Your task to perform on an android device: Open the stopwatch Image 0: 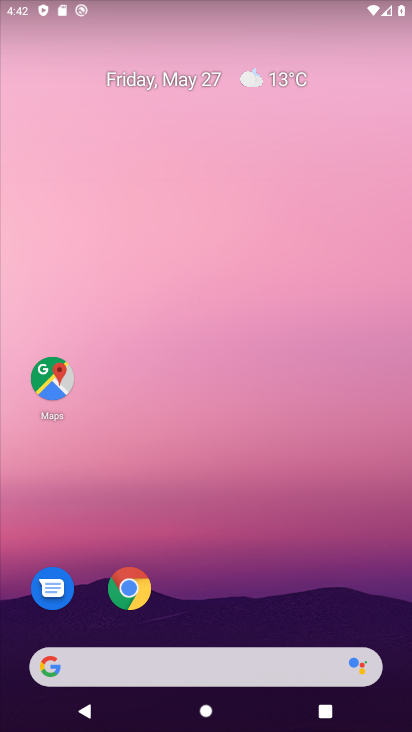
Step 0: drag from (239, 471) to (294, 87)
Your task to perform on an android device: Open the stopwatch Image 1: 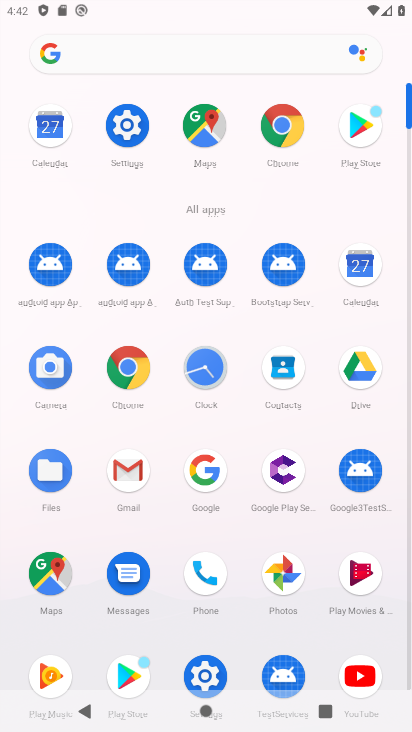
Step 1: click (133, 123)
Your task to perform on an android device: Open the stopwatch Image 2: 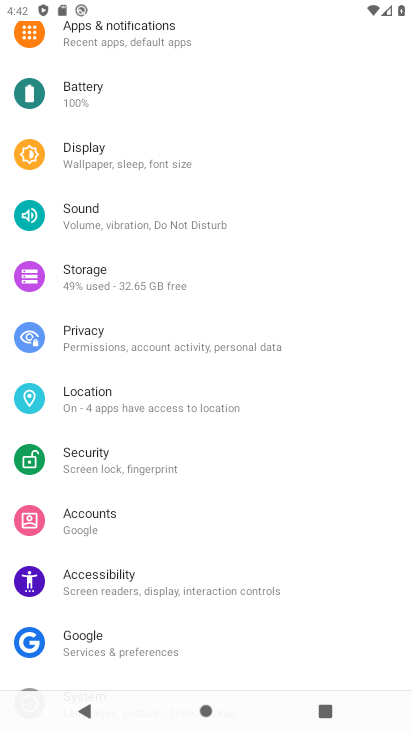
Step 2: press back button
Your task to perform on an android device: Open the stopwatch Image 3: 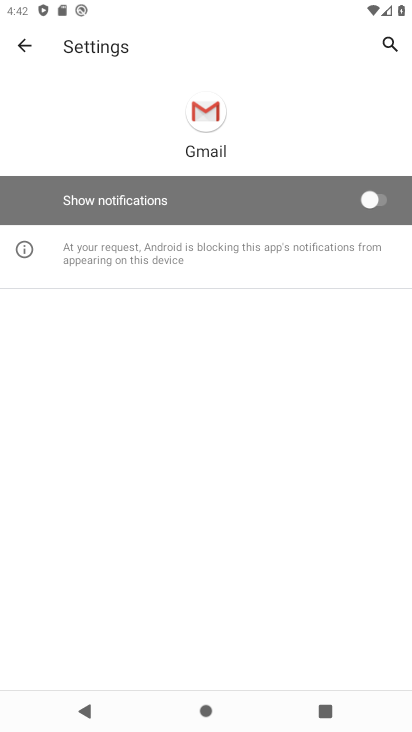
Step 3: press back button
Your task to perform on an android device: Open the stopwatch Image 4: 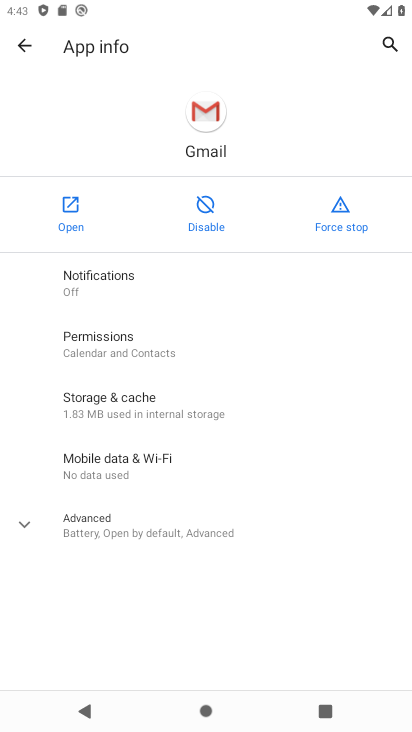
Step 4: press home button
Your task to perform on an android device: Open the stopwatch Image 5: 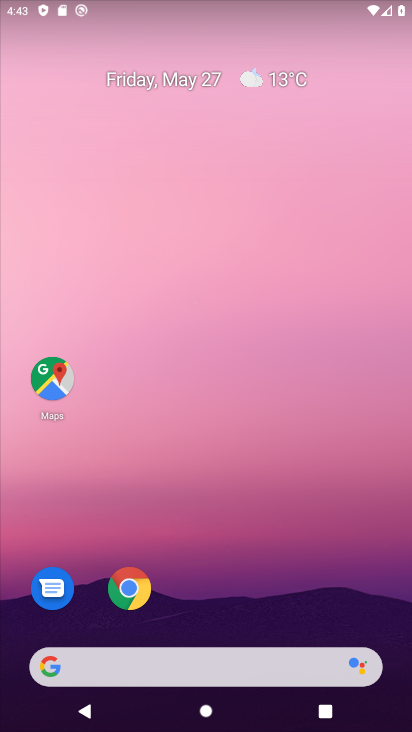
Step 5: drag from (180, 596) to (251, 44)
Your task to perform on an android device: Open the stopwatch Image 6: 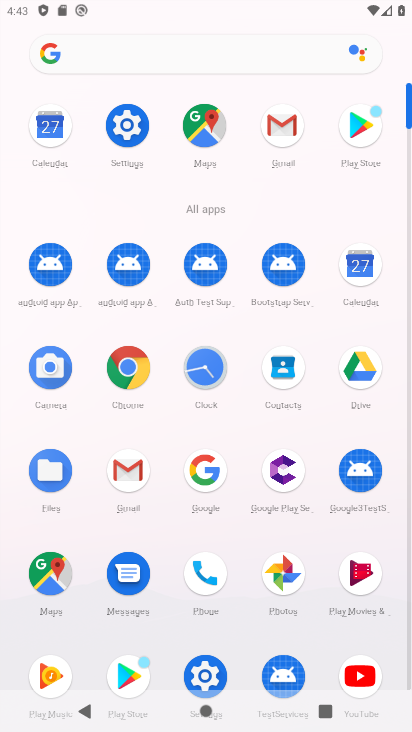
Step 6: click (203, 373)
Your task to perform on an android device: Open the stopwatch Image 7: 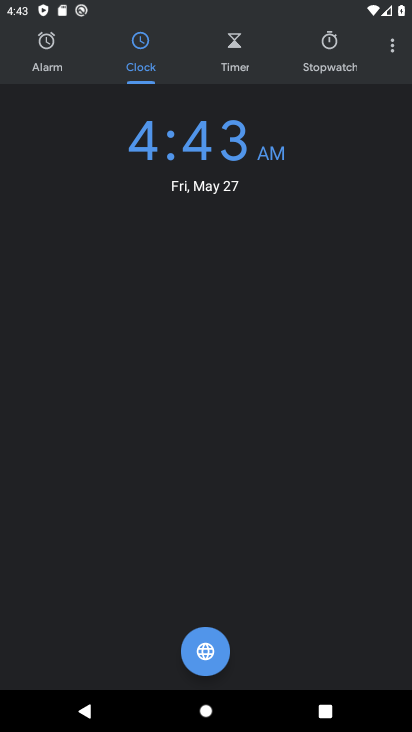
Step 7: click (316, 46)
Your task to perform on an android device: Open the stopwatch Image 8: 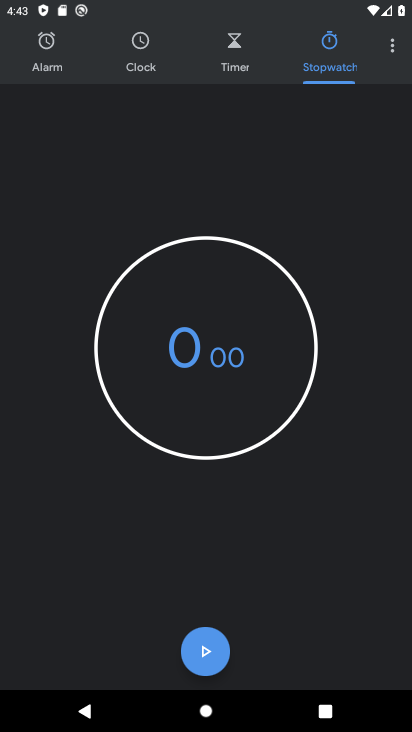
Step 8: task complete